Your task to perform on an android device: Search for vegetarian restaurants on Maps Image 0: 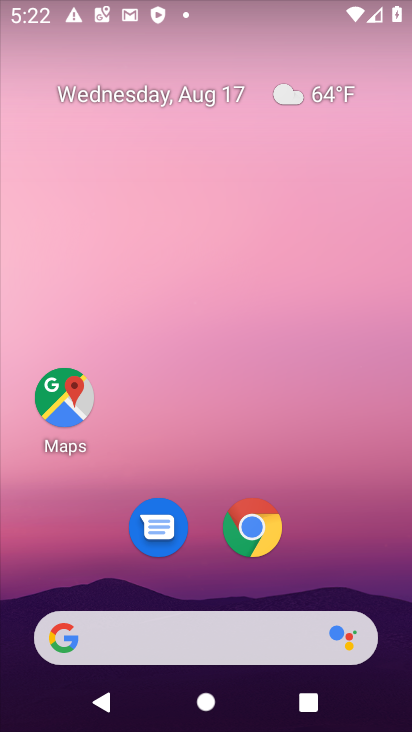
Step 0: drag from (182, 585) to (182, 132)
Your task to perform on an android device: Search for vegetarian restaurants on Maps Image 1: 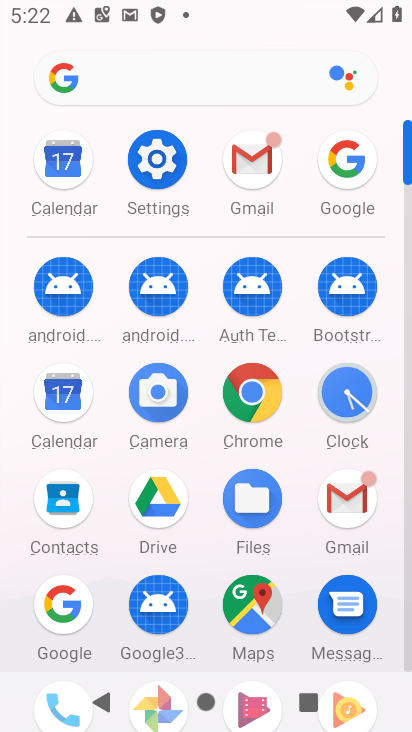
Step 1: click (263, 602)
Your task to perform on an android device: Search for vegetarian restaurants on Maps Image 2: 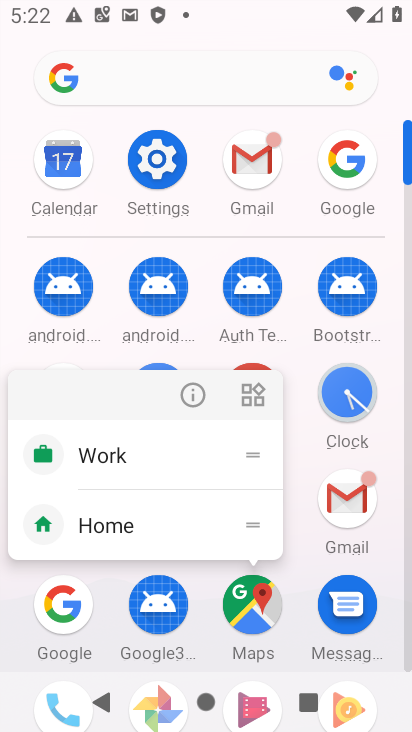
Step 2: click (257, 609)
Your task to perform on an android device: Search for vegetarian restaurants on Maps Image 3: 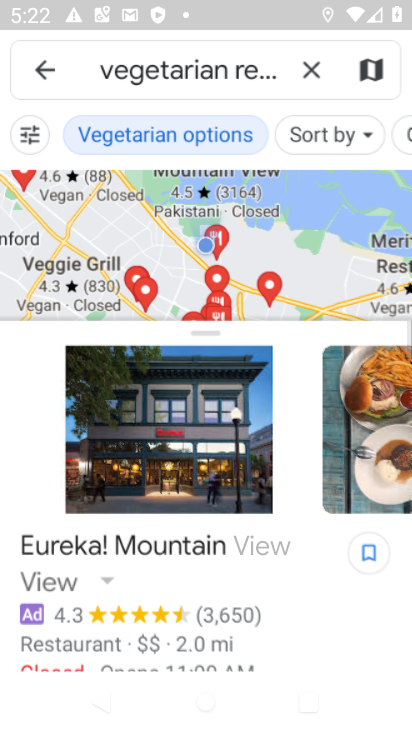
Step 3: task complete